Your task to perform on an android device: Is it going to rain today? Image 0: 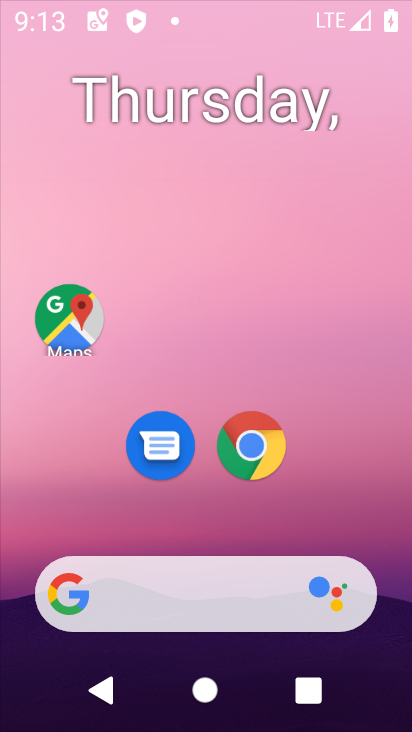
Step 0: click (261, 193)
Your task to perform on an android device: Is it going to rain today? Image 1: 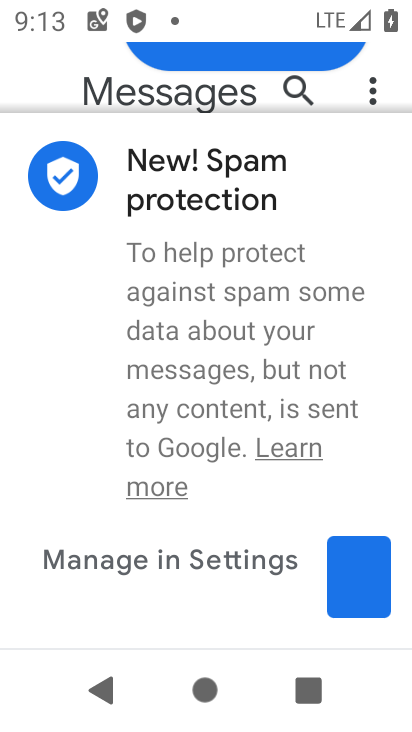
Step 1: press home button
Your task to perform on an android device: Is it going to rain today? Image 2: 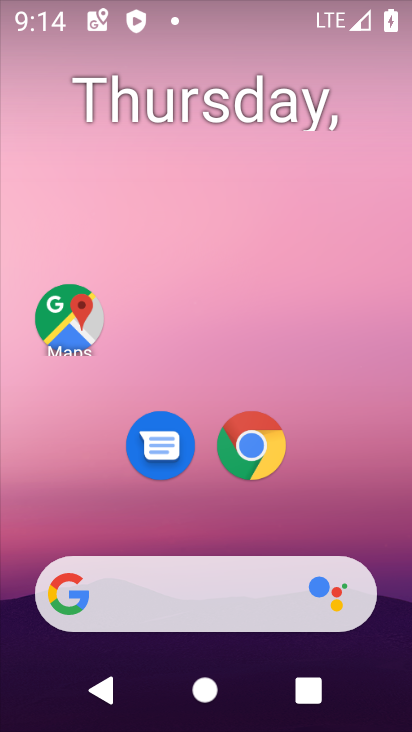
Step 2: drag from (184, 521) to (247, 198)
Your task to perform on an android device: Is it going to rain today? Image 3: 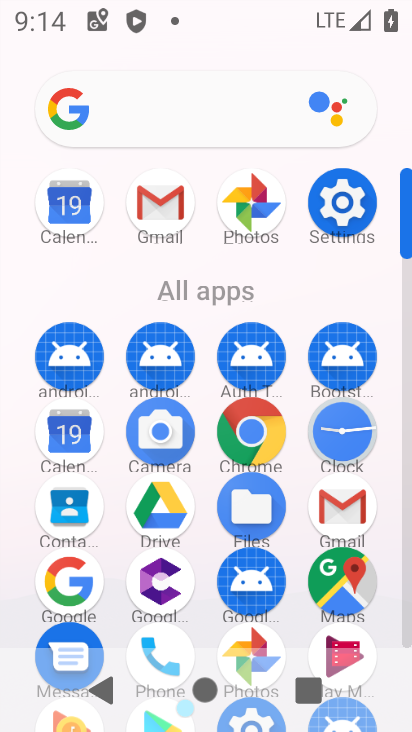
Step 3: click (156, 115)
Your task to perform on an android device: Is it going to rain today? Image 4: 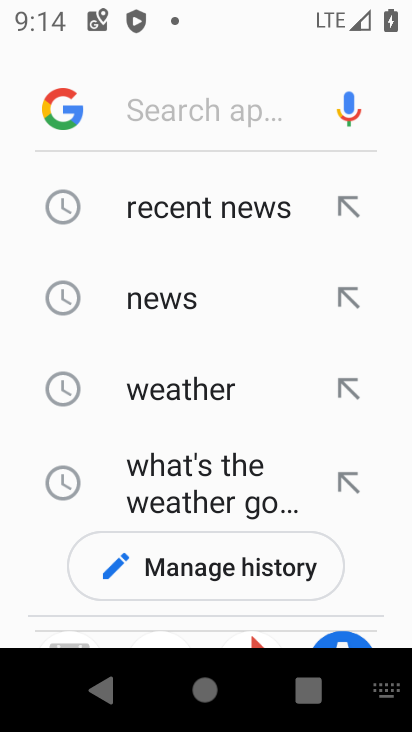
Step 4: type " it going to rain today?"
Your task to perform on an android device: Is it going to rain today? Image 5: 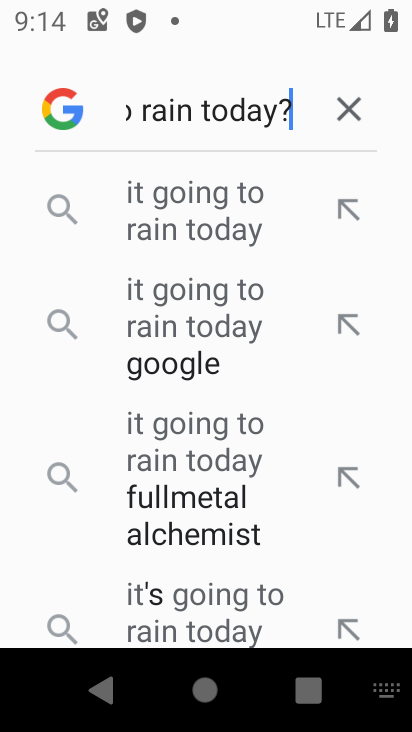
Step 5: type ""
Your task to perform on an android device: Is it going to rain today? Image 6: 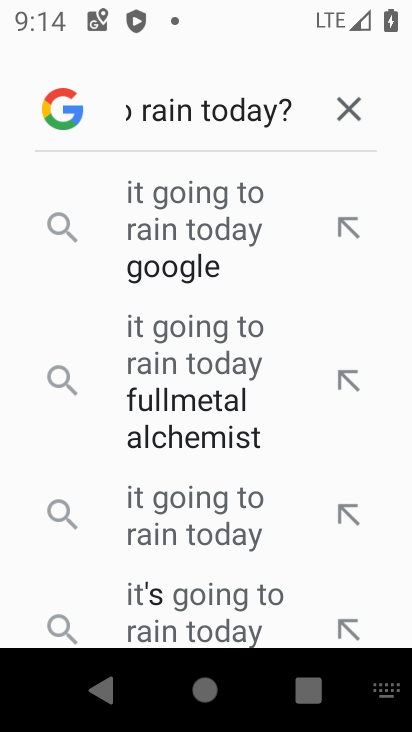
Step 6: click (193, 196)
Your task to perform on an android device: Is it going to rain today? Image 7: 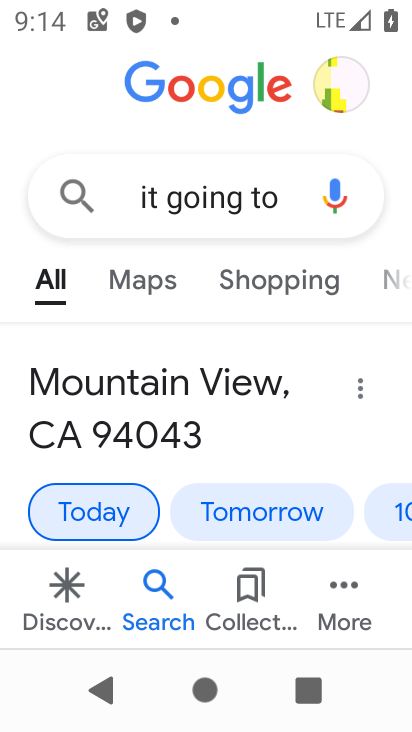
Step 7: task complete